Your task to perform on an android device: install app "Venmo" Image 0: 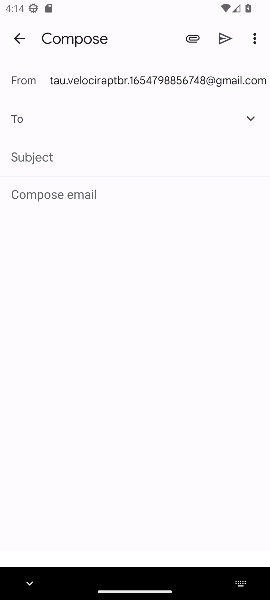
Step 0: press home button
Your task to perform on an android device: install app "Venmo" Image 1: 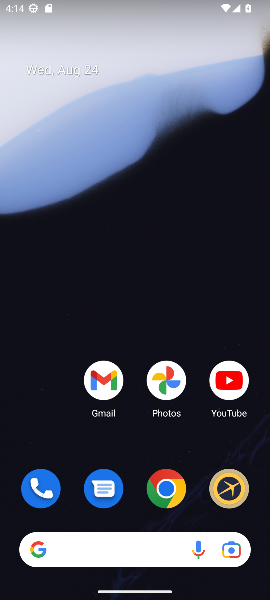
Step 1: drag from (140, 524) to (123, 86)
Your task to perform on an android device: install app "Venmo" Image 2: 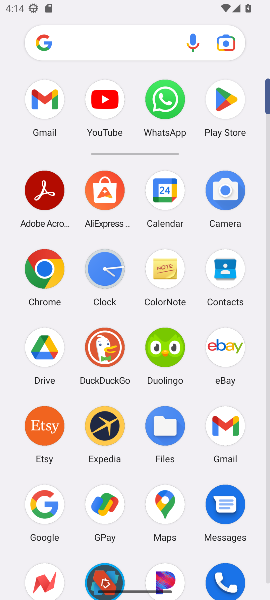
Step 2: click (221, 101)
Your task to perform on an android device: install app "Venmo" Image 3: 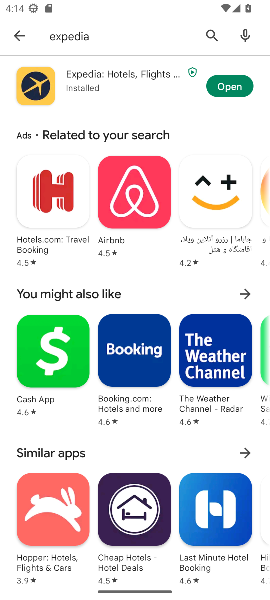
Step 3: click (208, 42)
Your task to perform on an android device: install app "Venmo" Image 4: 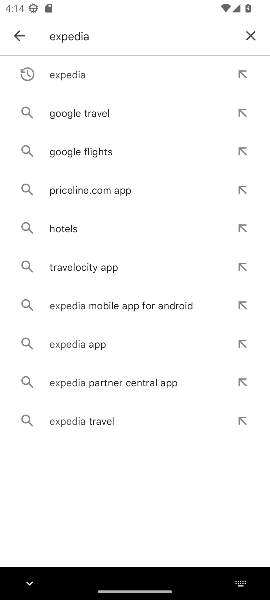
Step 4: click (245, 32)
Your task to perform on an android device: install app "Venmo" Image 5: 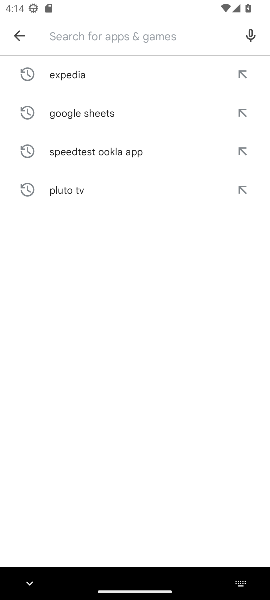
Step 5: type "venmo"
Your task to perform on an android device: install app "Venmo" Image 6: 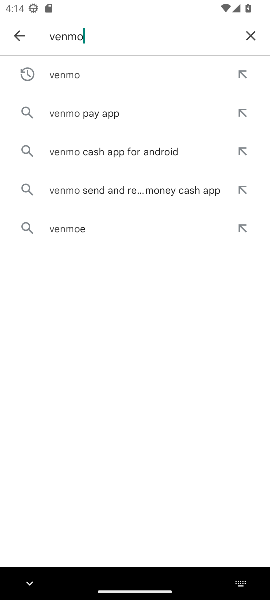
Step 6: click (93, 74)
Your task to perform on an android device: install app "Venmo" Image 7: 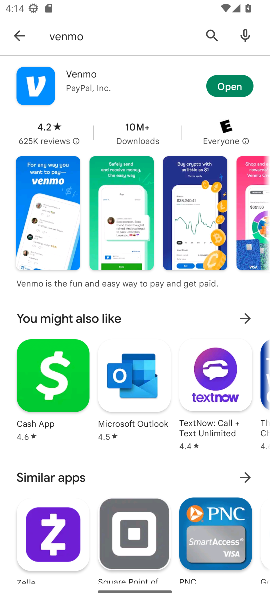
Step 7: click (224, 95)
Your task to perform on an android device: install app "Venmo" Image 8: 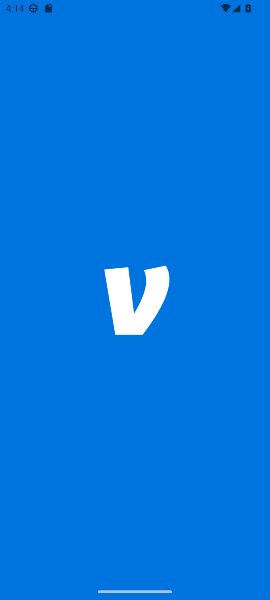
Step 8: task complete